Your task to perform on an android device: turn notification dots off Image 0: 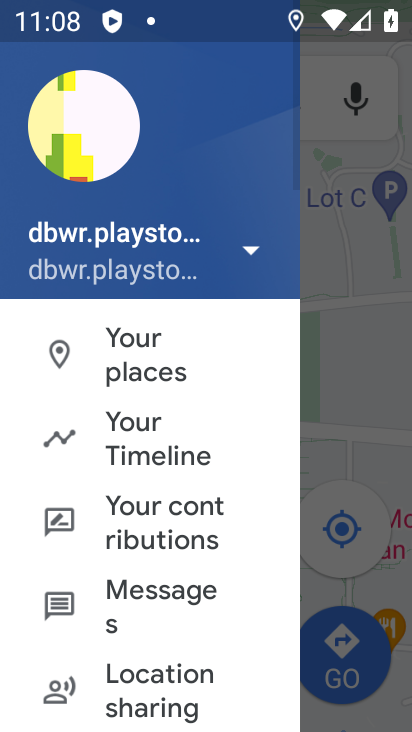
Step 0: press home button
Your task to perform on an android device: turn notification dots off Image 1: 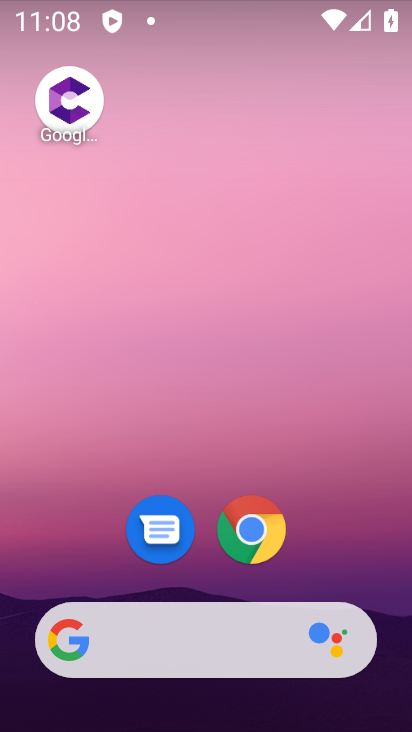
Step 1: drag from (252, 682) to (313, 133)
Your task to perform on an android device: turn notification dots off Image 2: 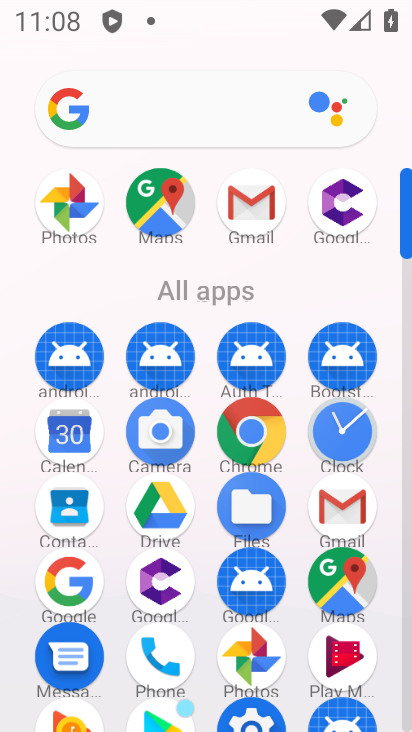
Step 2: click (247, 709)
Your task to perform on an android device: turn notification dots off Image 3: 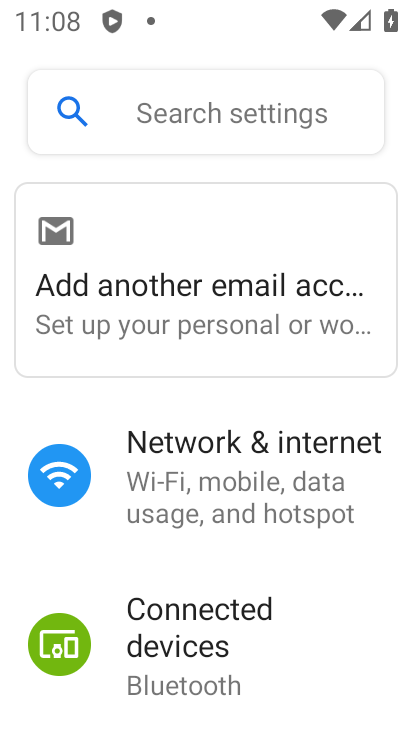
Step 3: click (204, 130)
Your task to perform on an android device: turn notification dots off Image 4: 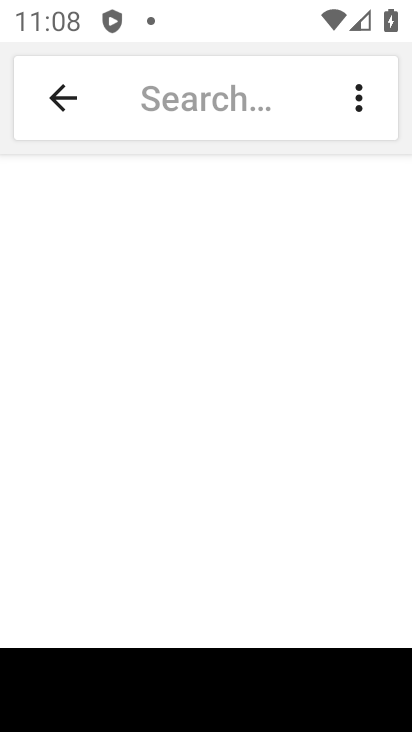
Step 4: drag from (370, 712) to (394, 358)
Your task to perform on an android device: turn notification dots off Image 5: 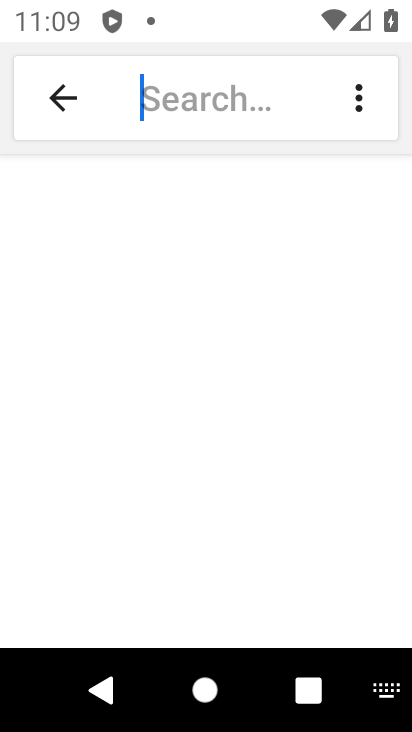
Step 5: click (390, 679)
Your task to perform on an android device: turn notification dots off Image 6: 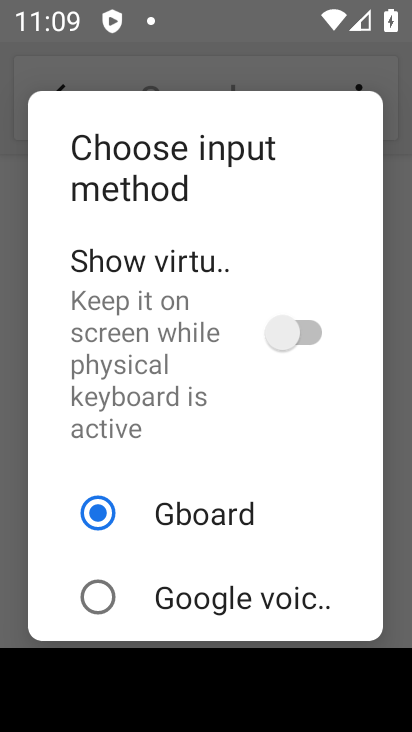
Step 6: click (308, 331)
Your task to perform on an android device: turn notification dots off Image 7: 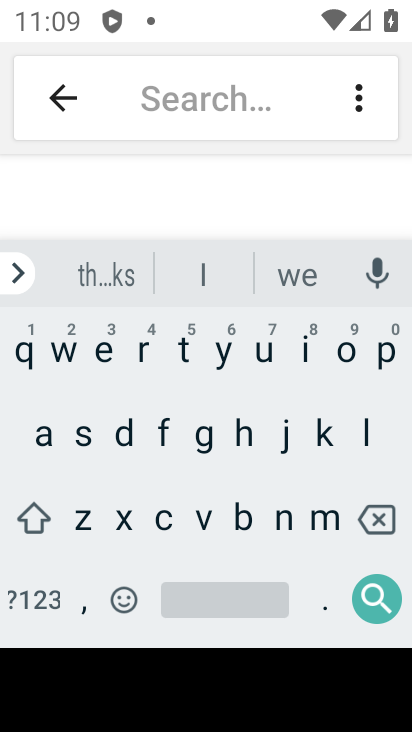
Step 7: click (125, 431)
Your task to perform on an android device: turn notification dots off Image 8: 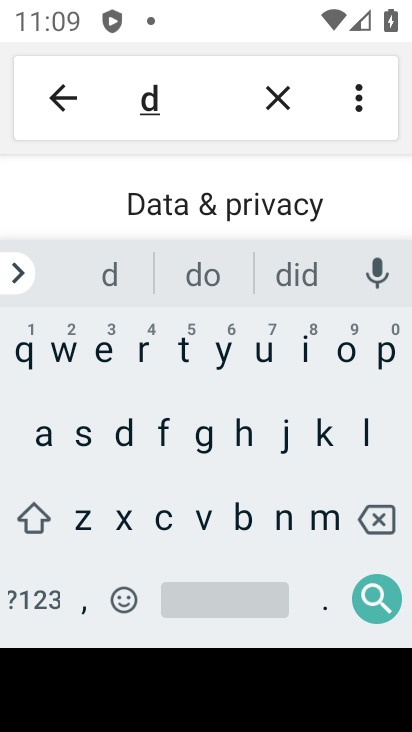
Step 8: click (343, 355)
Your task to perform on an android device: turn notification dots off Image 9: 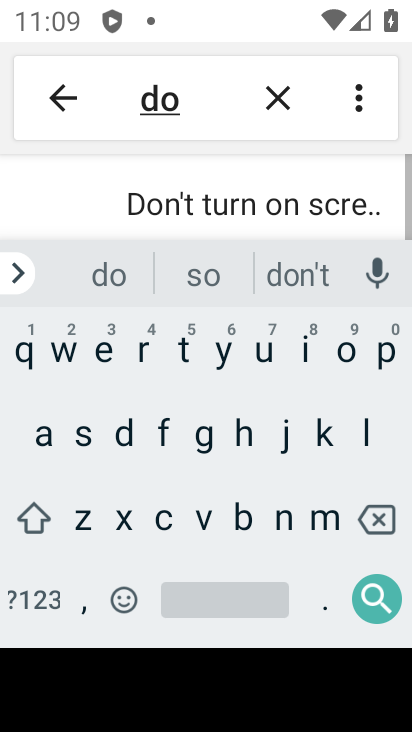
Step 9: click (190, 354)
Your task to perform on an android device: turn notification dots off Image 10: 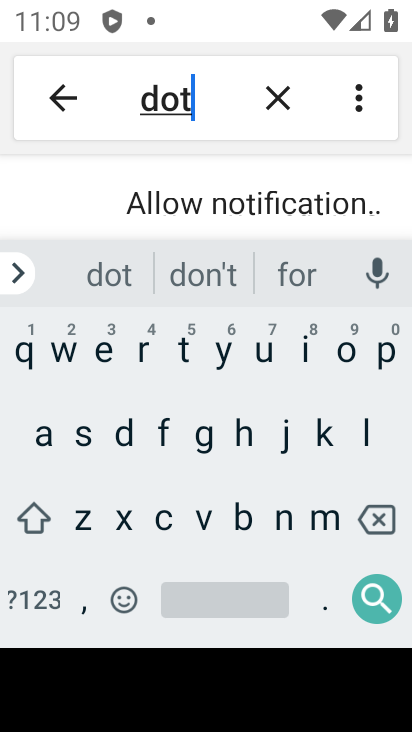
Step 10: press back button
Your task to perform on an android device: turn notification dots off Image 11: 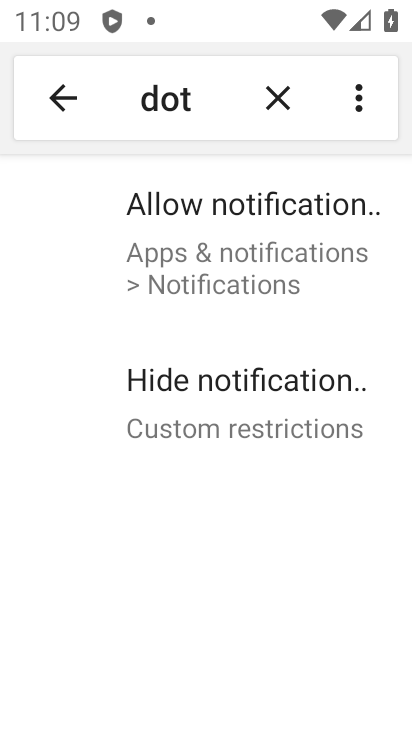
Step 11: click (264, 239)
Your task to perform on an android device: turn notification dots off Image 12: 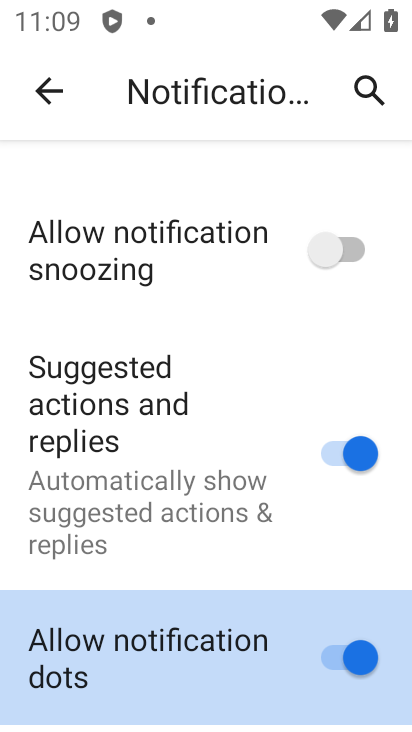
Step 12: click (351, 660)
Your task to perform on an android device: turn notification dots off Image 13: 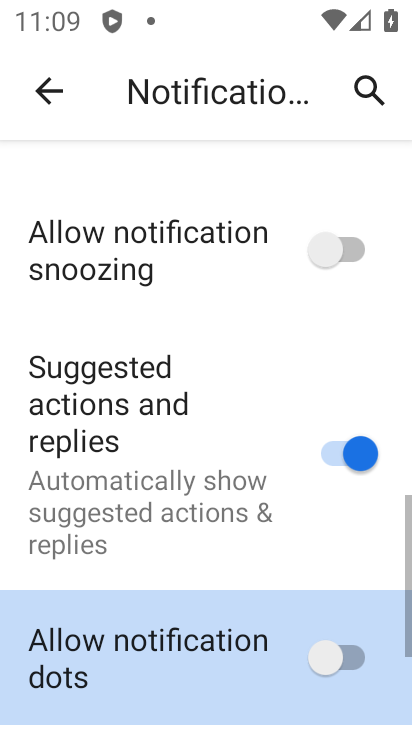
Step 13: task complete